Your task to perform on an android device: turn off notifications settings in the gmail app Image 0: 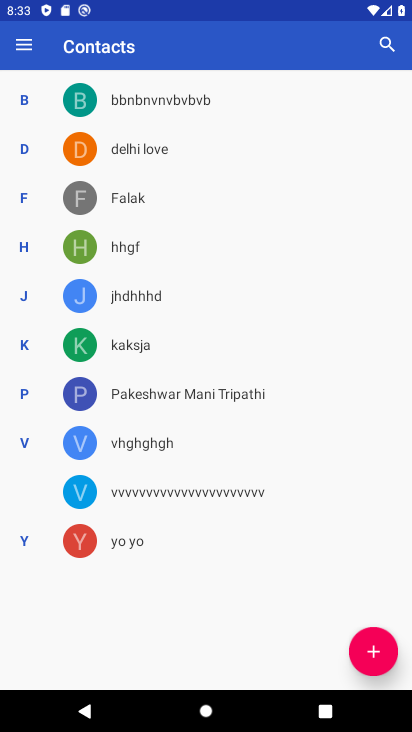
Step 0: press home button
Your task to perform on an android device: turn off notifications settings in the gmail app Image 1: 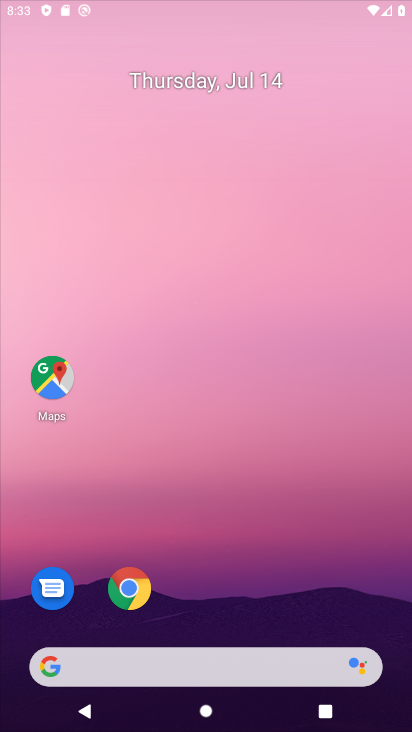
Step 1: drag from (221, 611) to (331, 129)
Your task to perform on an android device: turn off notifications settings in the gmail app Image 2: 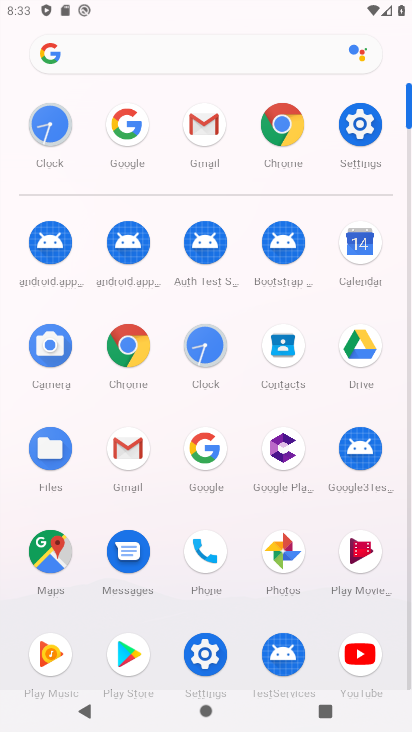
Step 2: click (206, 126)
Your task to perform on an android device: turn off notifications settings in the gmail app Image 3: 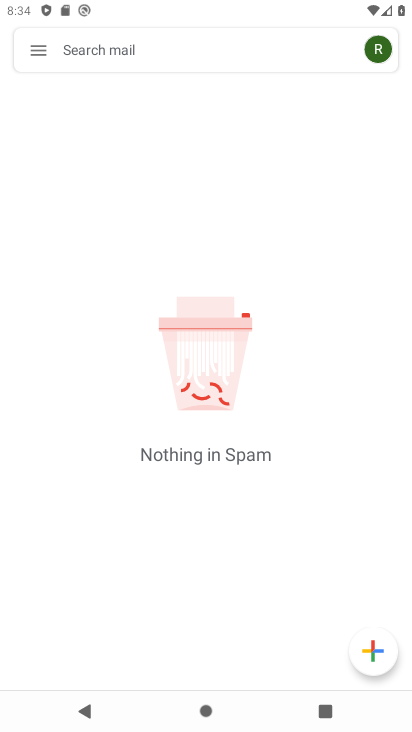
Step 3: click (46, 47)
Your task to perform on an android device: turn off notifications settings in the gmail app Image 4: 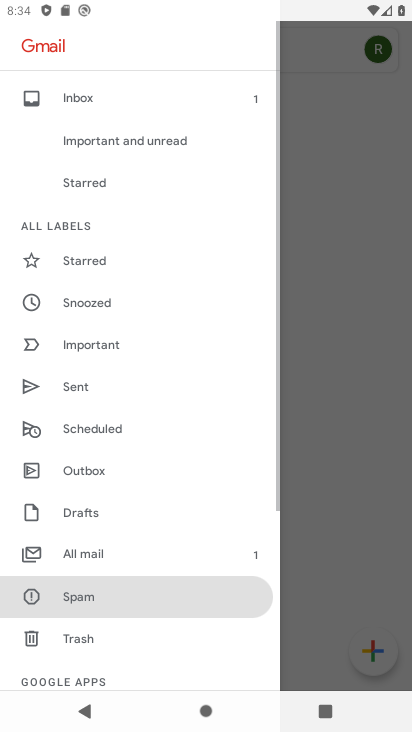
Step 4: drag from (170, 617) to (248, 126)
Your task to perform on an android device: turn off notifications settings in the gmail app Image 5: 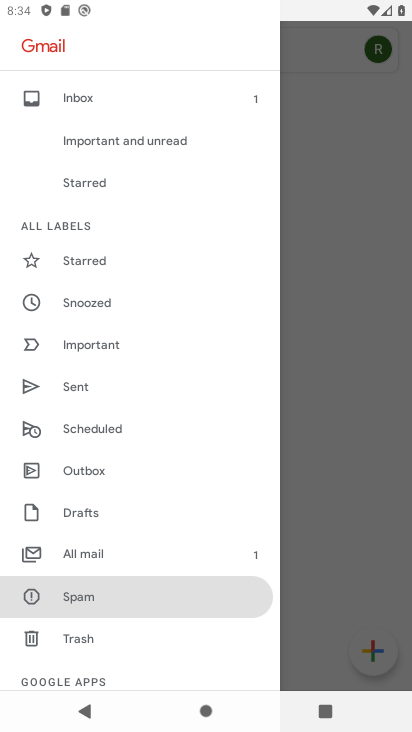
Step 5: drag from (106, 619) to (169, 265)
Your task to perform on an android device: turn off notifications settings in the gmail app Image 6: 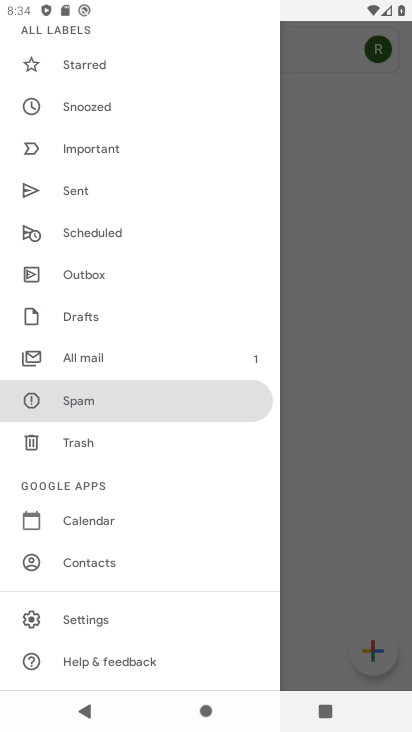
Step 6: click (75, 619)
Your task to perform on an android device: turn off notifications settings in the gmail app Image 7: 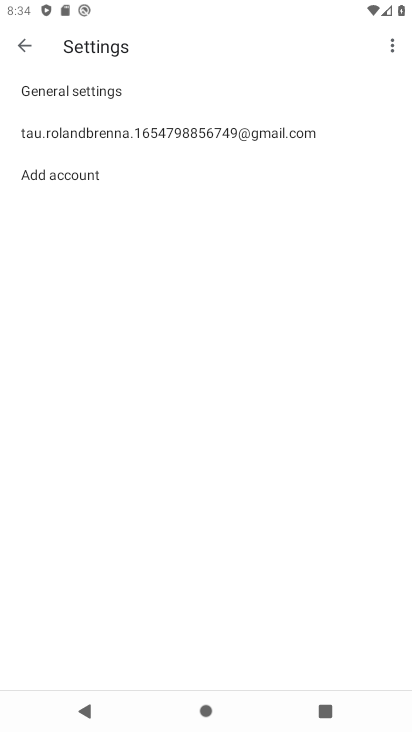
Step 7: click (159, 131)
Your task to perform on an android device: turn off notifications settings in the gmail app Image 8: 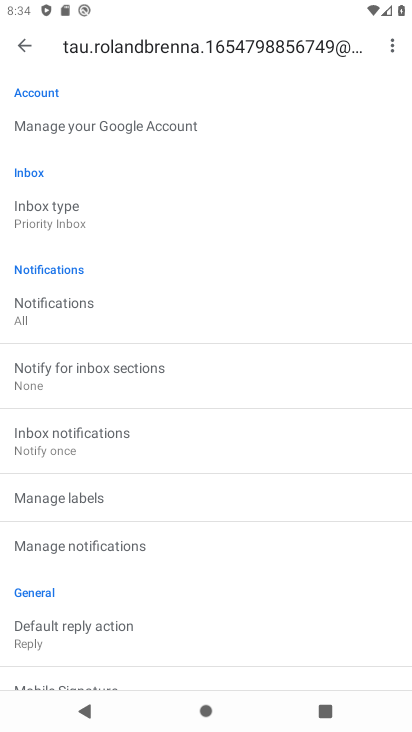
Step 8: click (68, 312)
Your task to perform on an android device: turn off notifications settings in the gmail app Image 9: 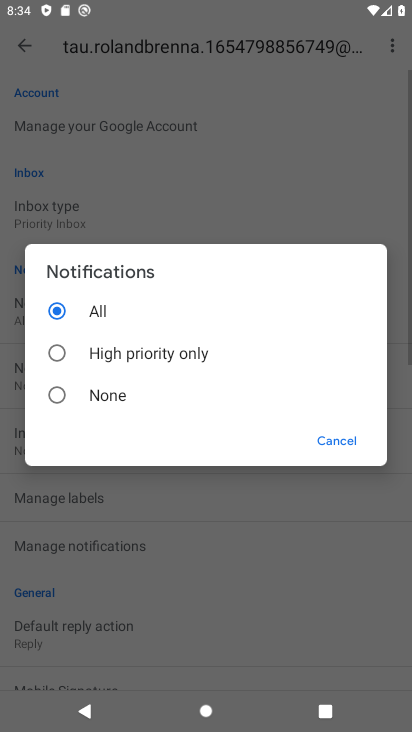
Step 9: click (50, 397)
Your task to perform on an android device: turn off notifications settings in the gmail app Image 10: 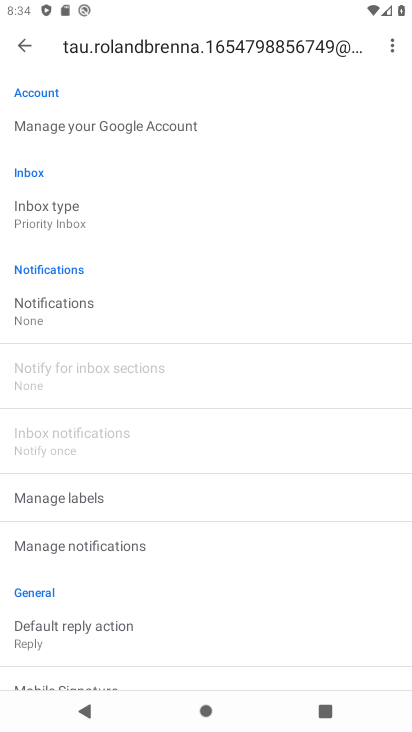
Step 10: task complete